Your task to perform on an android device: check android version Image 0: 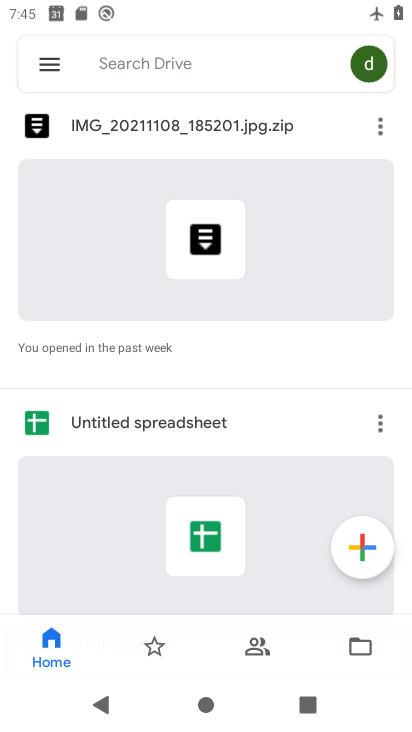
Step 0: press home button
Your task to perform on an android device: check android version Image 1: 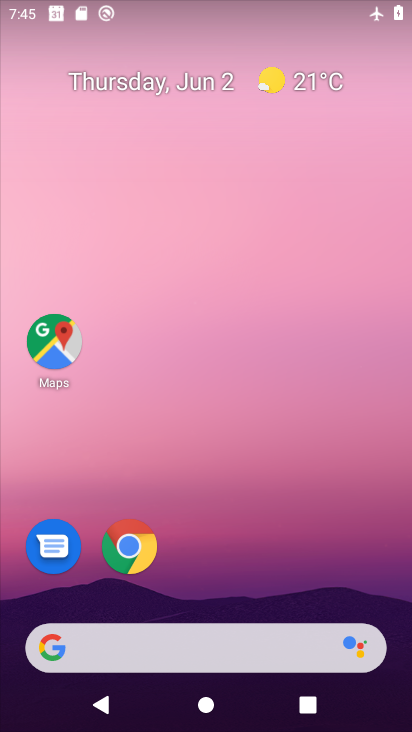
Step 1: drag from (352, 587) to (295, 147)
Your task to perform on an android device: check android version Image 2: 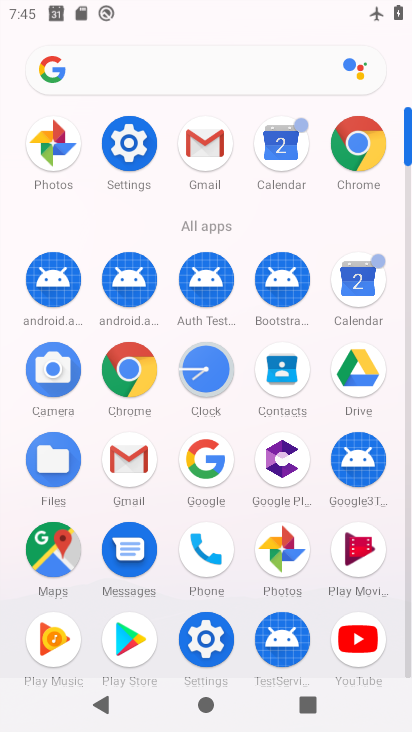
Step 2: click (121, 152)
Your task to perform on an android device: check android version Image 3: 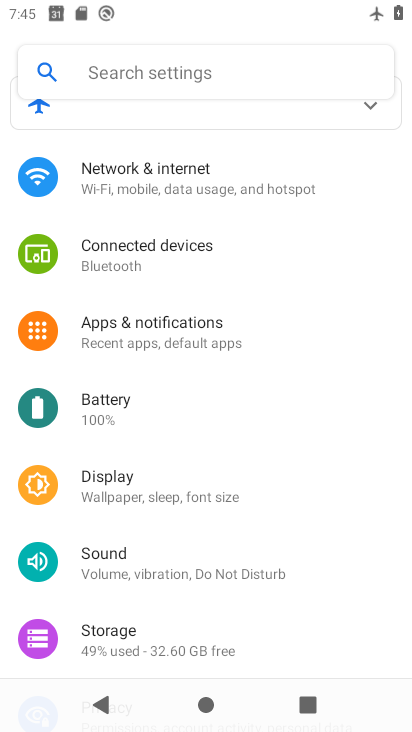
Step 3: drag from (274, 572) to (299, 372)
Your task to perform on an android device: check android version Image 4: 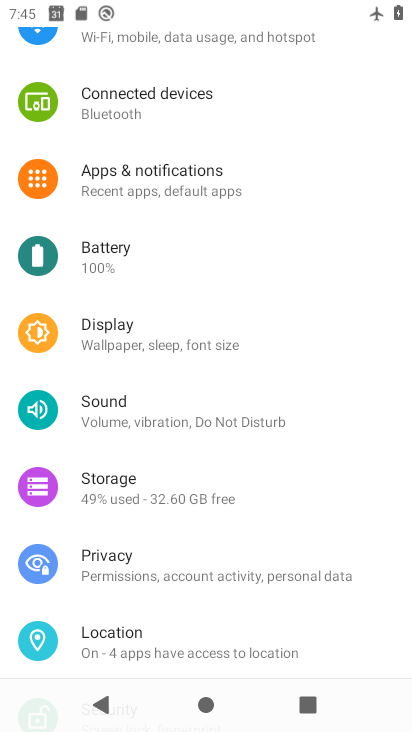
Step 4: drag from (267, 590) to (301, 350)
Your task to perform on an android device: check android version Image 5: 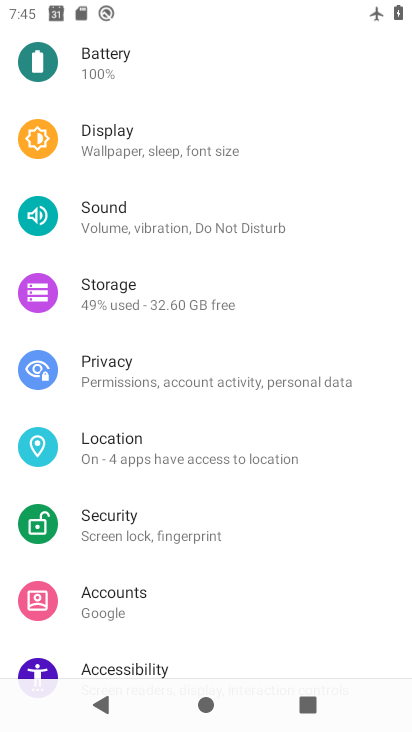
Step 5: drag from (281, 597) to (302, 344)
Your task to perform on an android device: check android version Image 6: 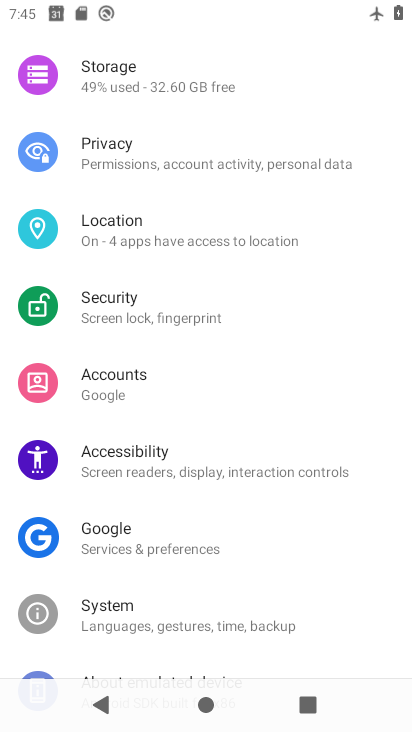
Step 6: drag from (246, 594) to (320, 349)
Your task to perform on an android device: check android version Image 7: 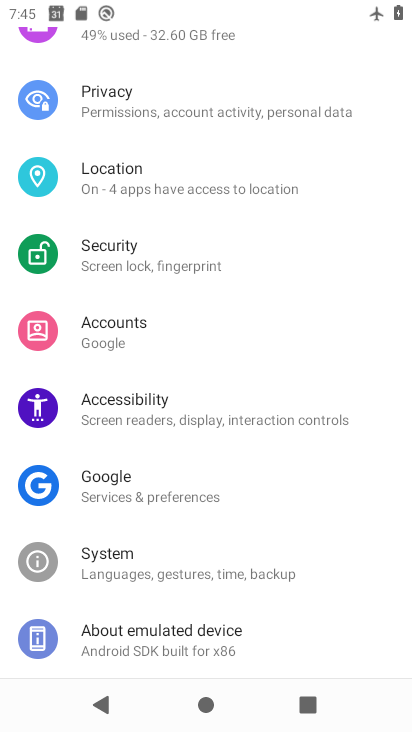
Step 7: click (184, 632)
Your task to perform on an android device: check android version Image 8: 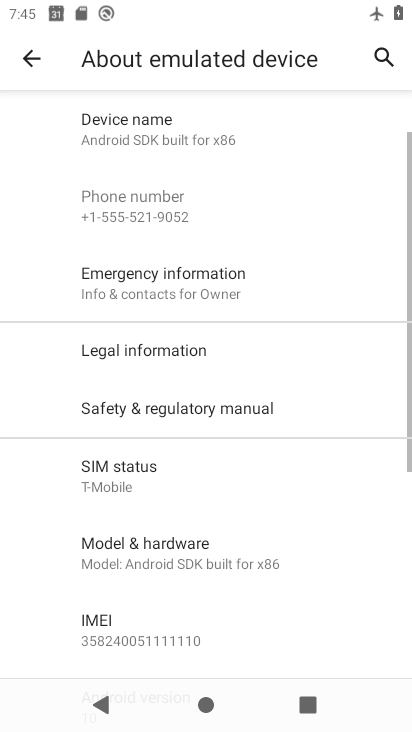
Step 8: drag from (177, 495) to (247, 296)
Your task to perform on an android device: check android version Image 9: 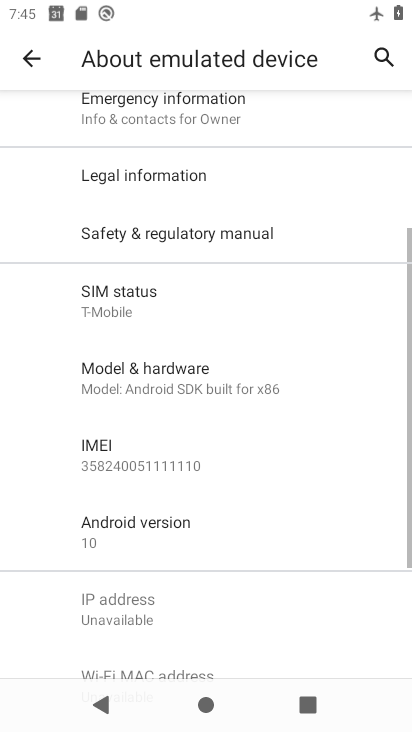
Step 9: click (184, 521)
Your task to perform on an android device: check android version Image 10: 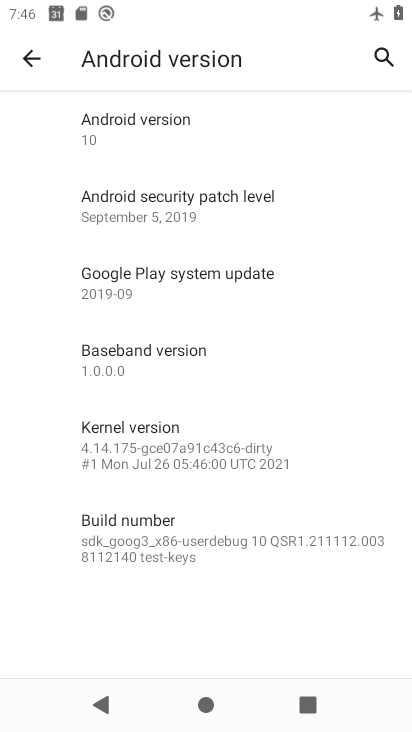
Step 10: task complete